Your task to perform on an android device: remove spam from my inbox in the gmail app Image 0: 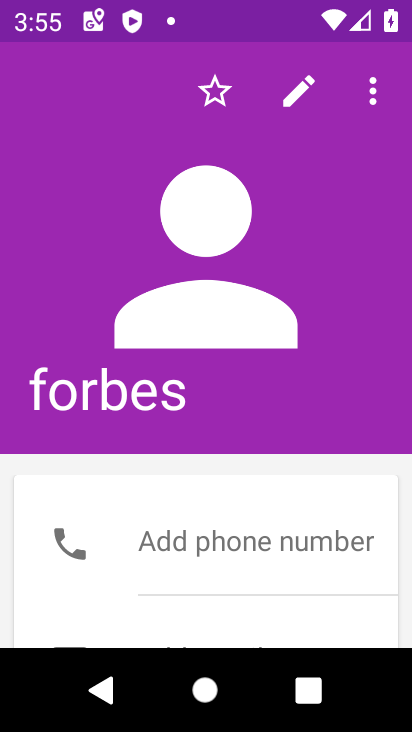
Step 0: press home button
Your task to perform on an android device: remove spam from my inbox in the gmail app Image 1: 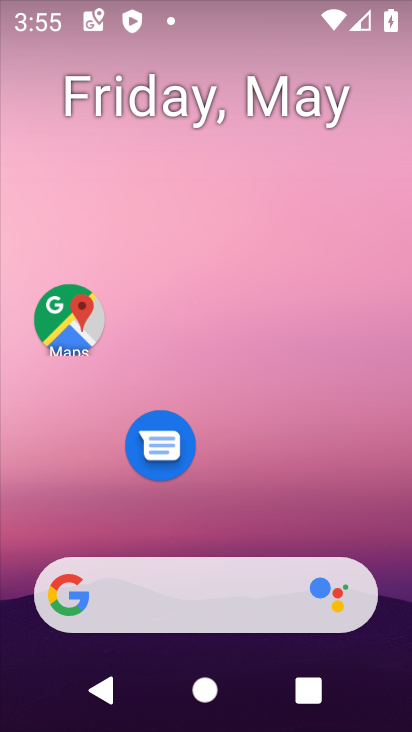
Step 1: drag from (270, 495) to (320, 193)
Your task to perform on an android device: remove spam from my inbox in the gmail app Image 2: 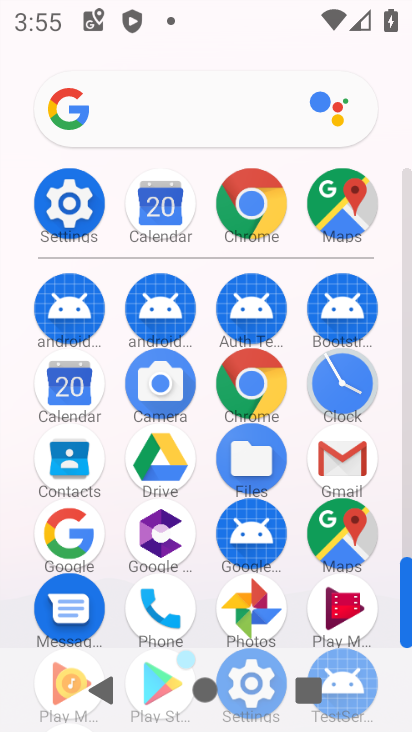
Step 2: click (336, 457)
Your task to perform on an android device: remove spam from my inbox in the gmail app Image 3: 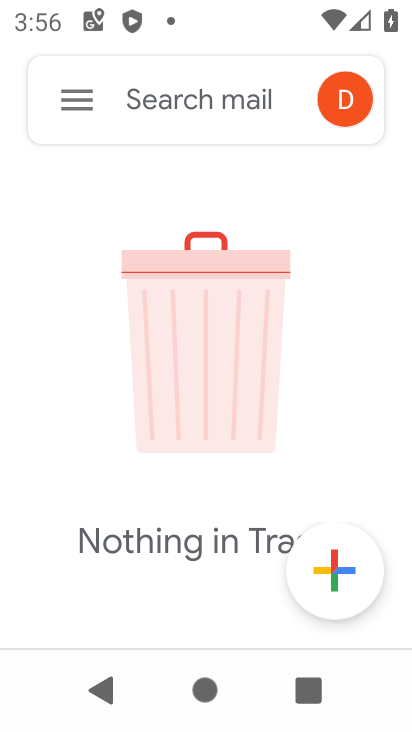
Step 3: click (93, 107)
Your task to perform on an android device: remove spam from my inbox in the gmail app Image 4: 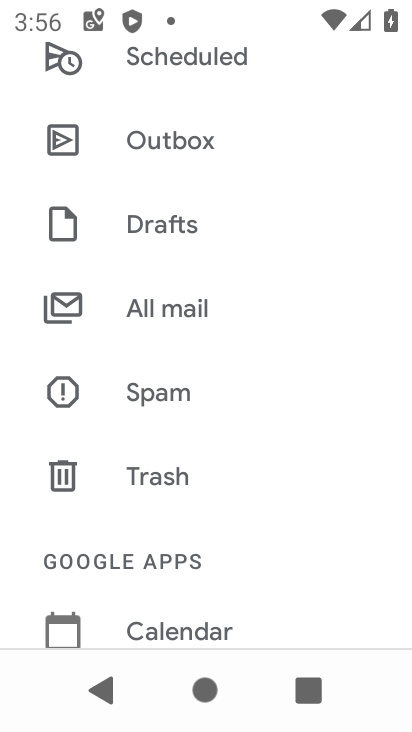
Step 4: click (156, 387)
Your task to perform on an android device: remove spam from my inbox in the gmail app Image 5: 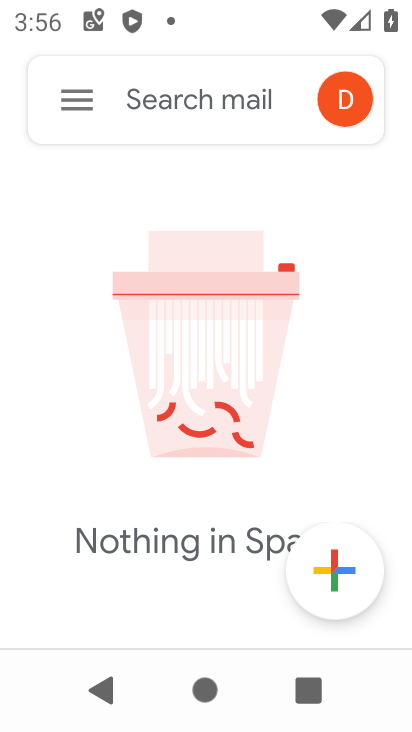
Step 5: task complete